Your task to perform on an android device: Open accessibility settings Image 0: 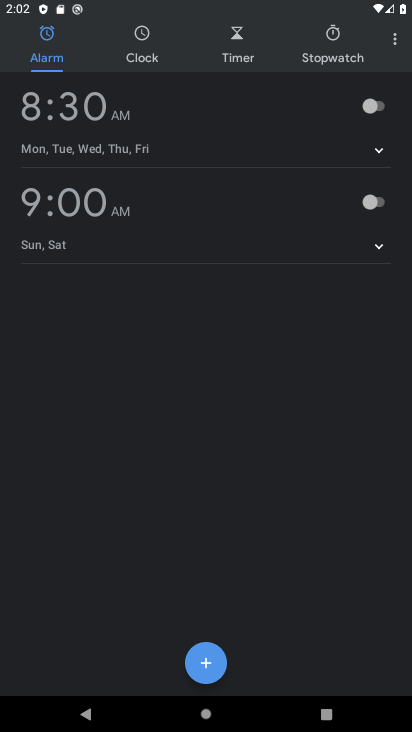
Step 0: press home button
Your task to perform on an android device: Open accessibility settings Image 1: 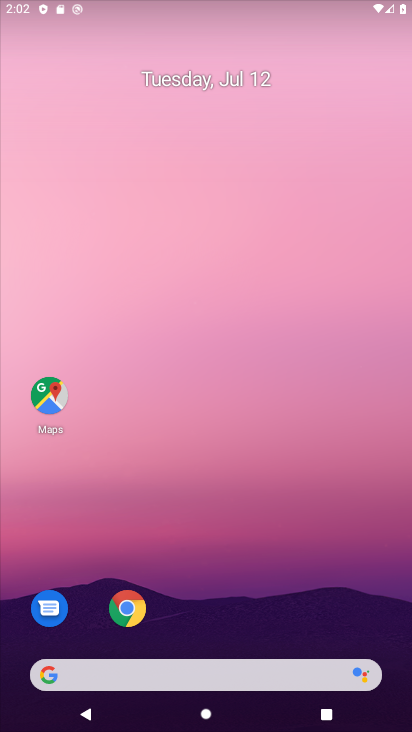
Step 1: drag from (297, 584) to (233, 56)
Your task to perform on an android device: Open accessibility settings Image 2: 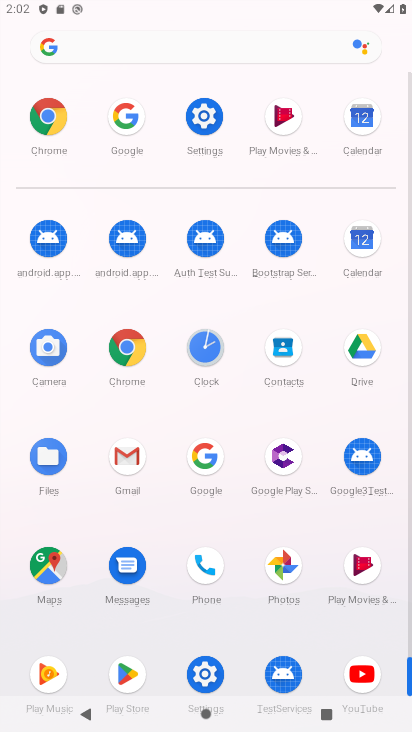
Step 2: click (198, 110)
Your task to perform on an android device: Open accessibility settings Image 3: 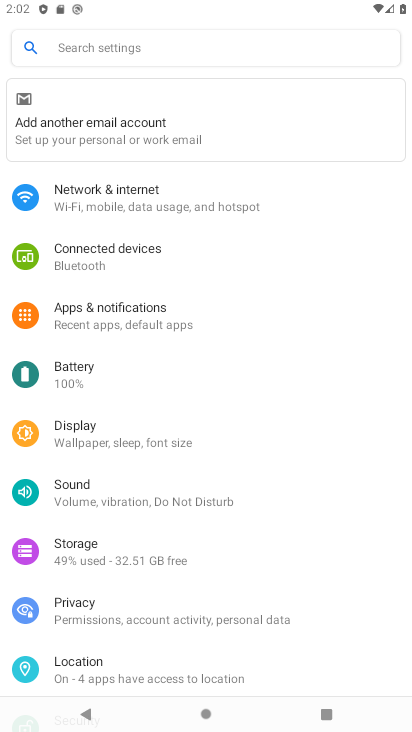
Step 3: drag from (204, 466) to (239, 115)
Your task to perform on an android device: Open accessibility settings Image 4: 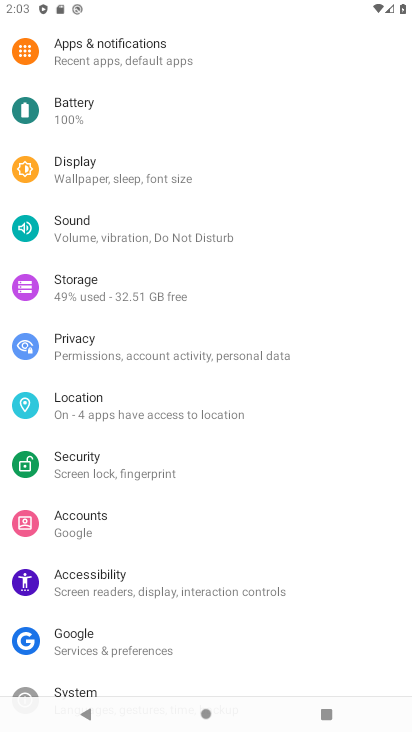
Step 4: drag from (288, 651) to (269, 187)
Your task to perform on an android device: Open accessibility settings Image 5: 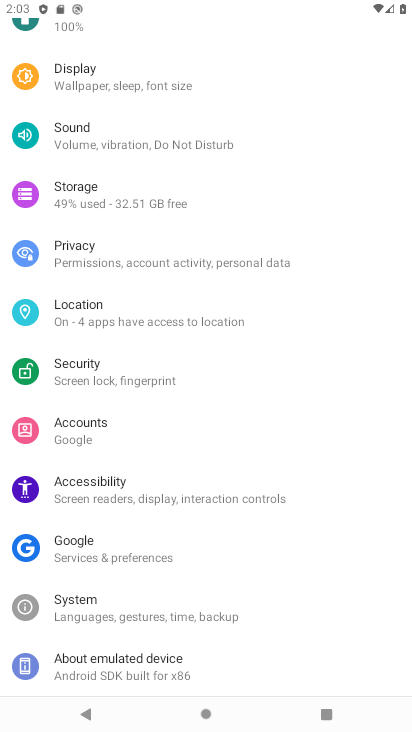
Step 5: click (124, 495)
Your task to perform on an android device: Open accessibility settings Image 6: 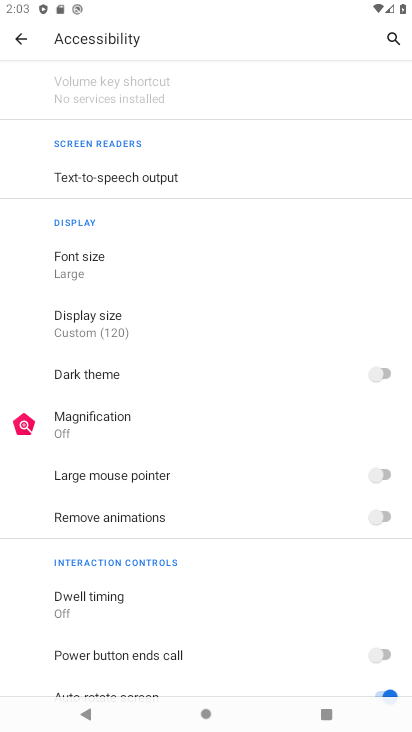
Step 6: task complete